Your task to perform on an android device: Open CNN.com Image 0: 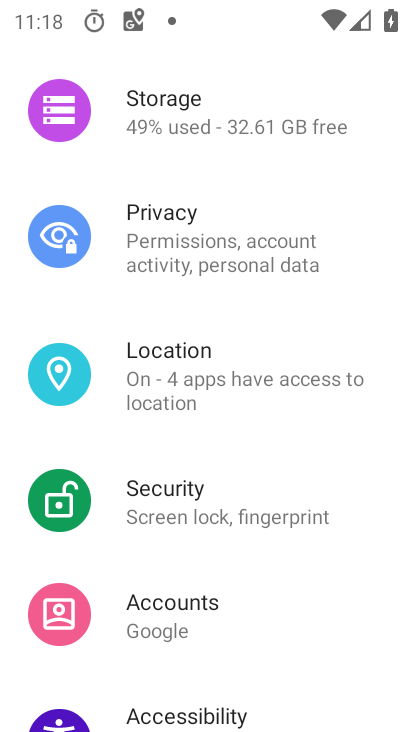
Step 0: press home button
Your task to perform on an android device: Open CNN.com Image 1: 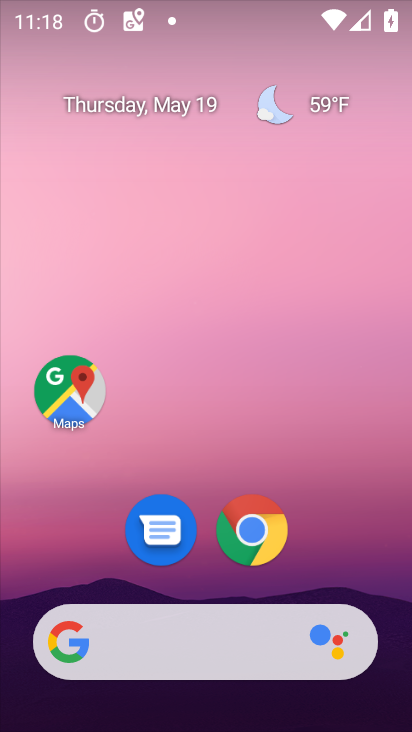
Step 1: drag from (395, 514) to (388, 102)
Your task to perform on an android device: Open CNN.com Image 2: 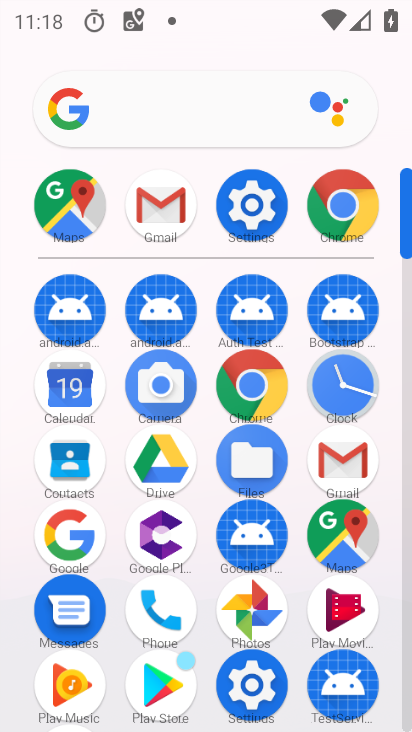
Step 2: click (337, 225)
Your task to perform on an android device: Open CNN.com Image 3: 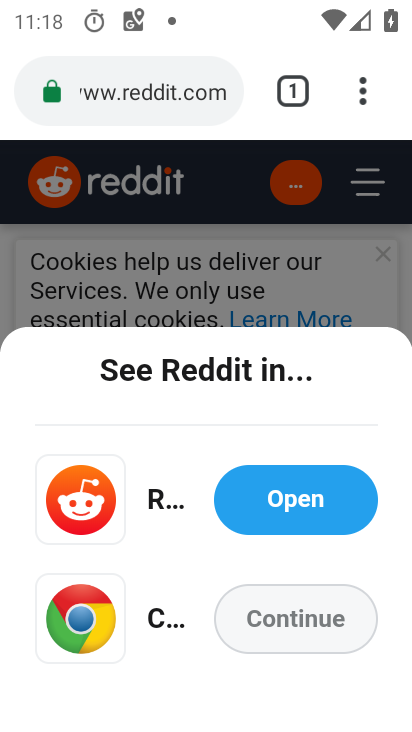
Step 3: click (182, 105)
Your task to perform on an android device: Open CNN.com Image 4: 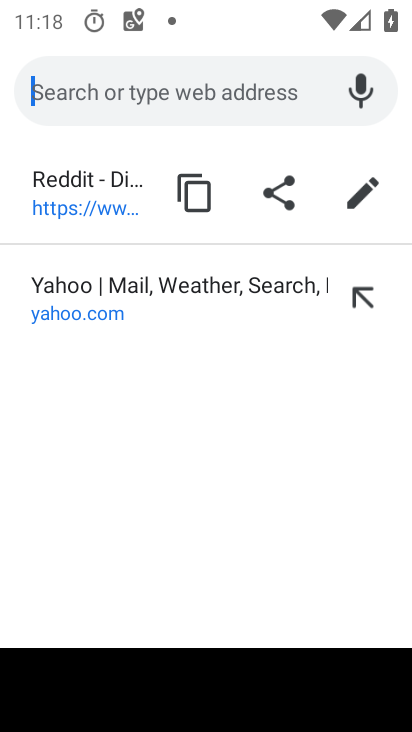
Step 4: type "cnn.com"
Your task to perform on an android device: Open CNN.com Image 5: 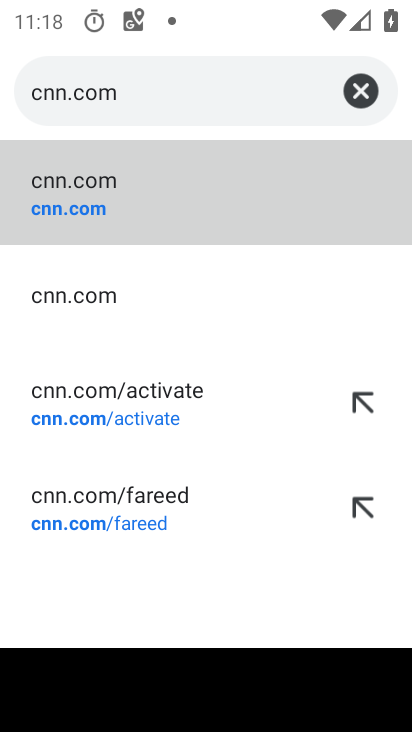
Step 5: click (87, 222)
Your task to perform on an android device: Open CNN.com Image 6: 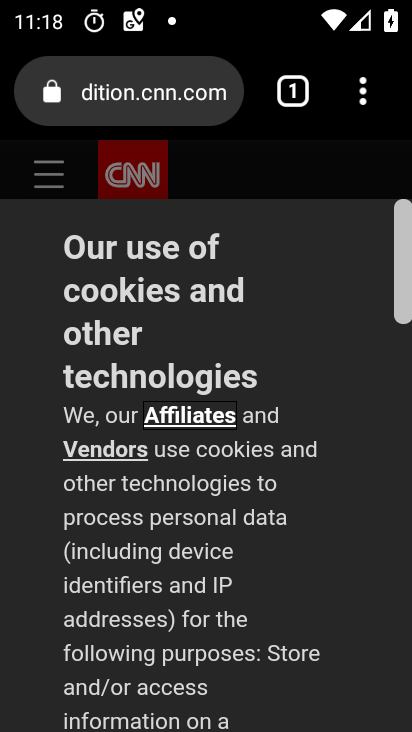
Step 6: task complete